Your task to perform on an android device: turn on translation in the chrome app Image 0: 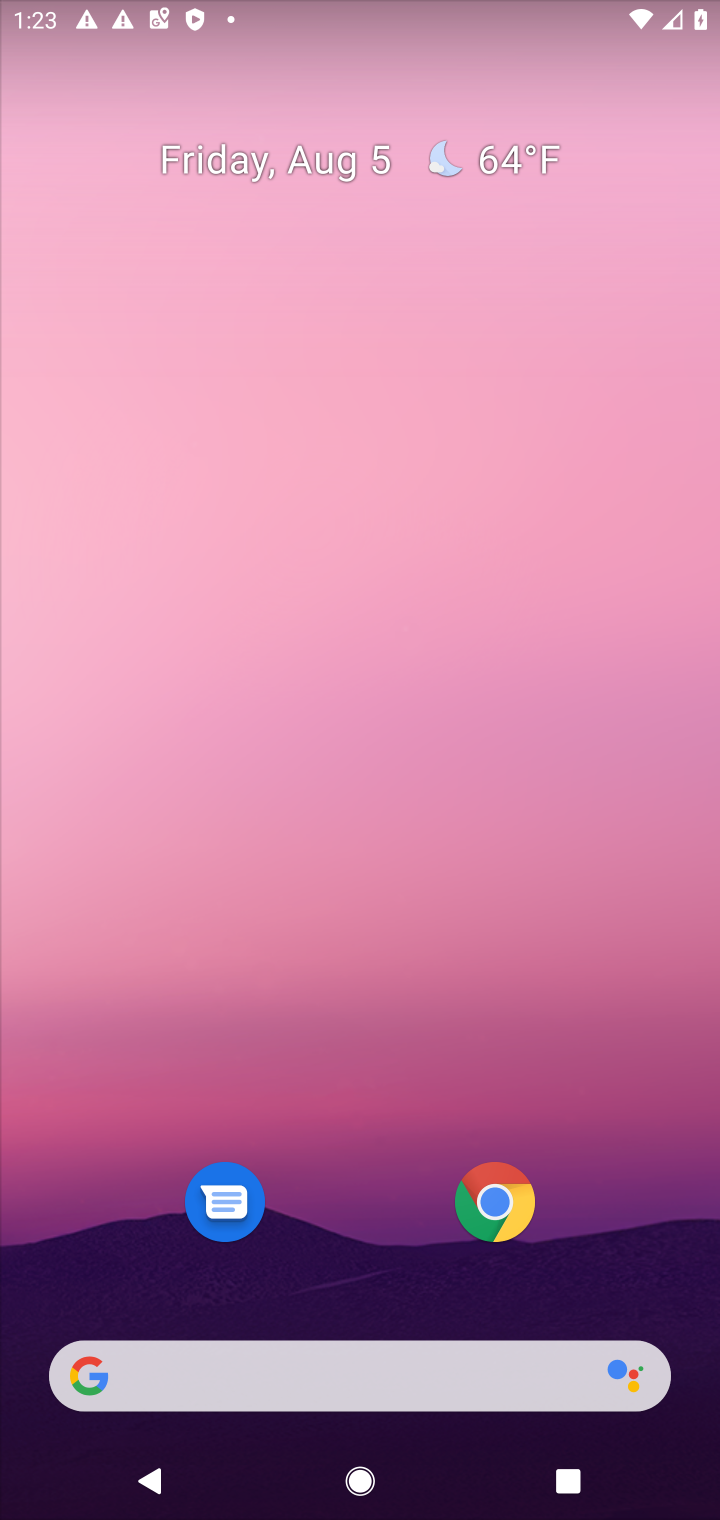
Step 0: drag from (351, 1207) to (432, 184)
Your task to perform on an android device: turn on translation in the chrome app Image 1: 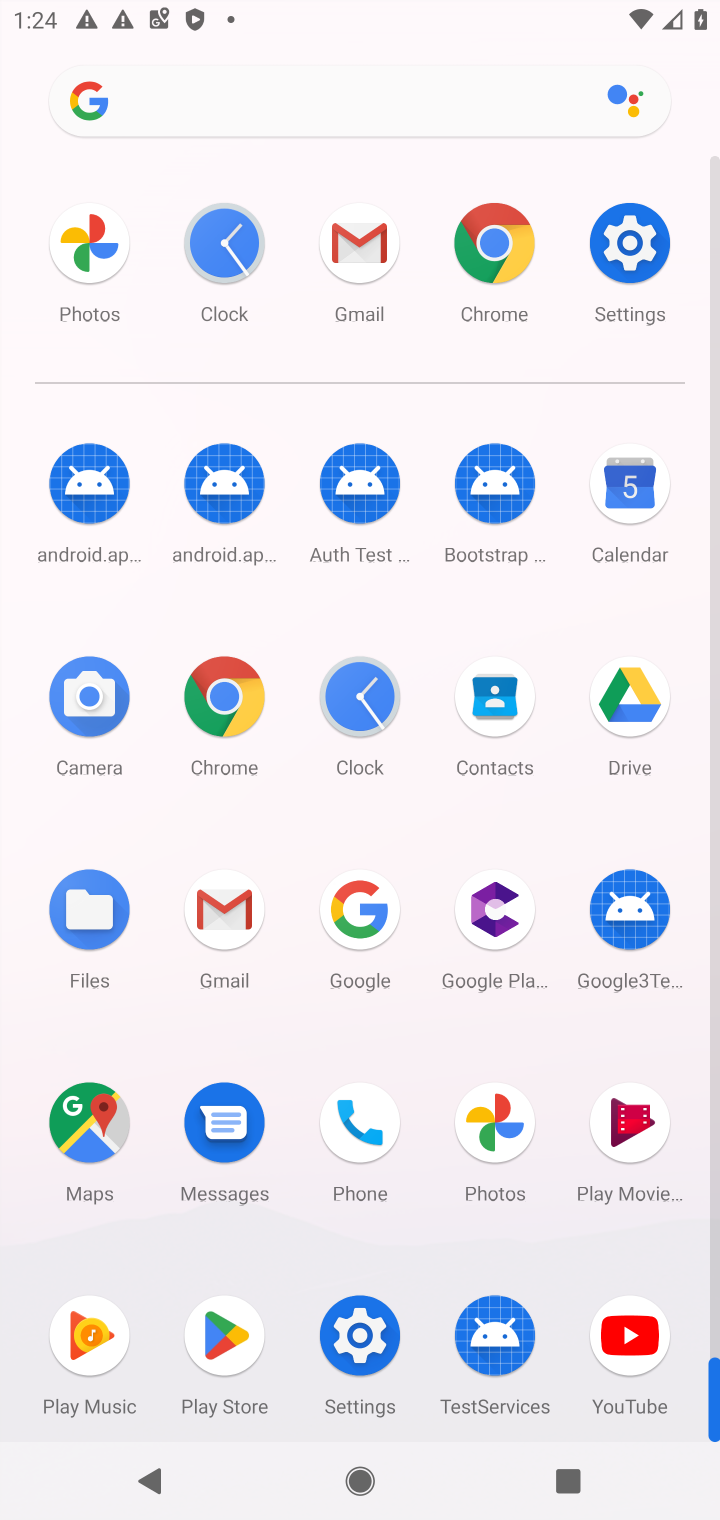
Step 1: click (230, 684)
Your task to perform on an android device: turn on translation in the chrome app Image 2: 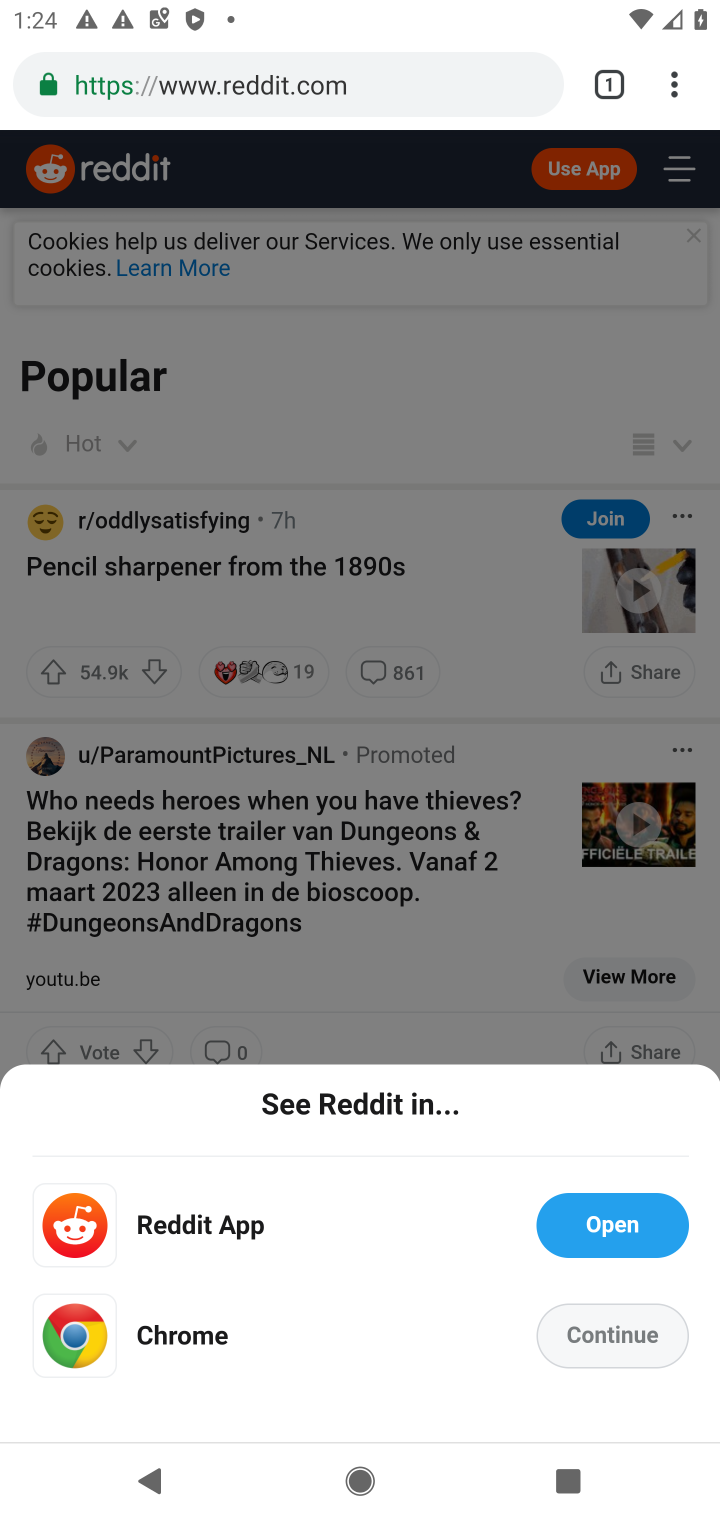
Step 2: drag from (671, 87) to (416, 1006)
Your task to perform on an android device: turn on translation in the chrome app Image 3: 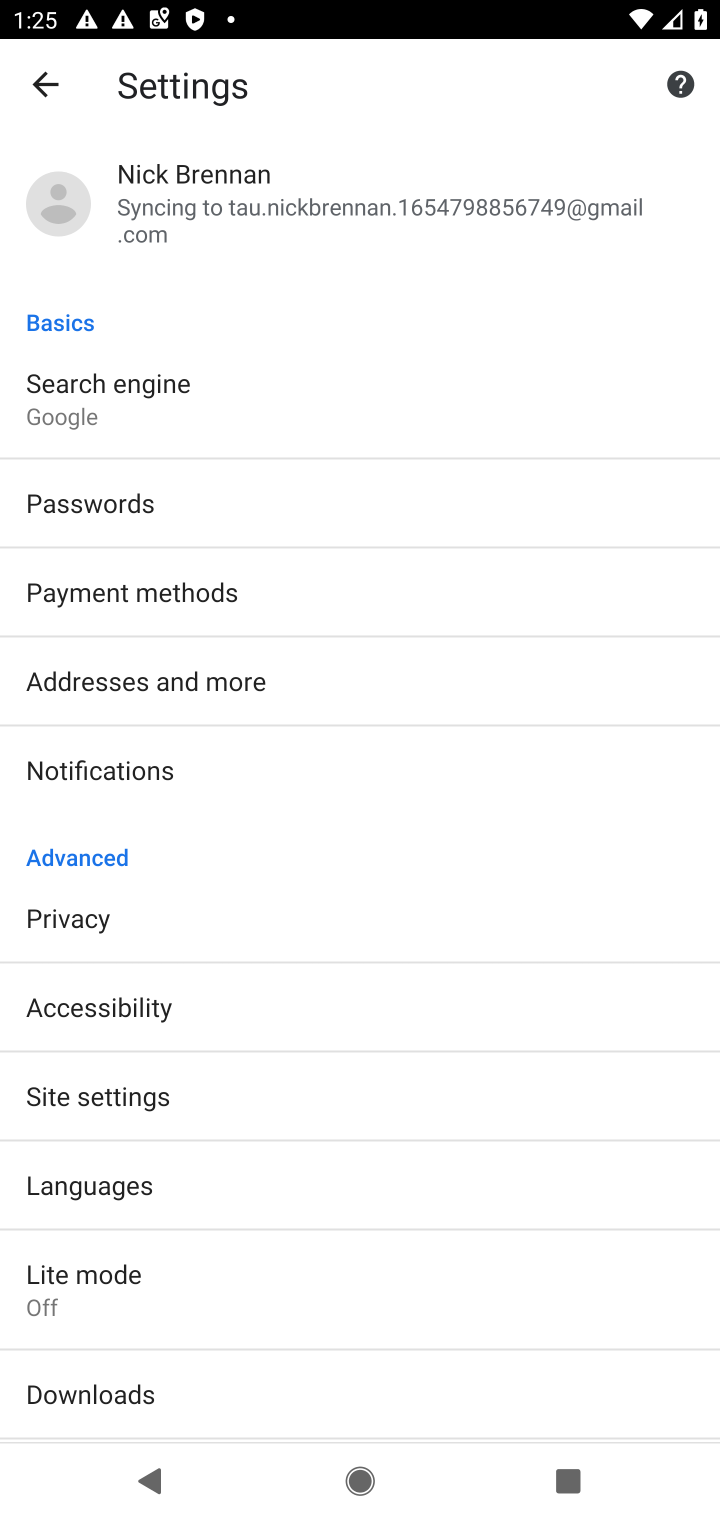
Step 3: click (67, 1174)
Your task to perform on an android device: turn on translation in the chrome app Image 4: 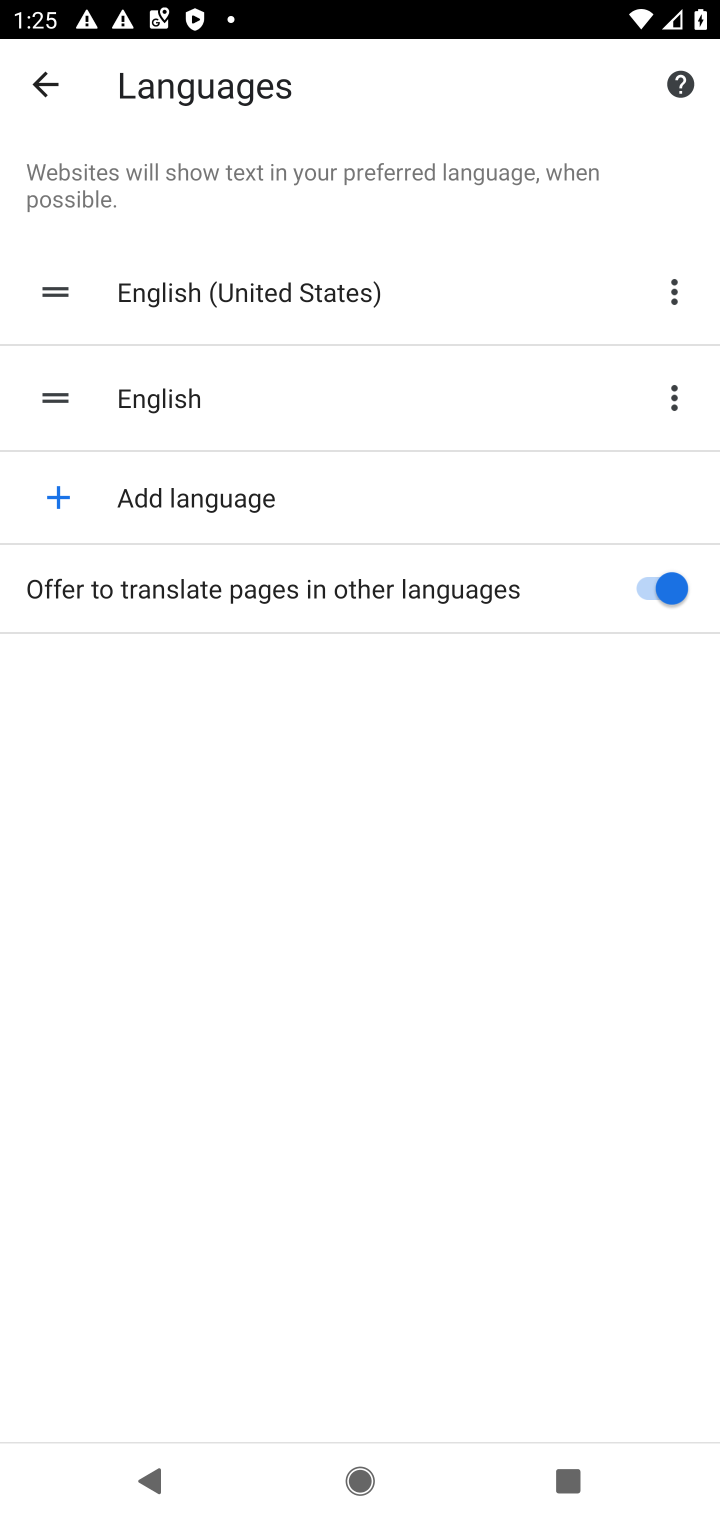
Step 4: task complete